Your task to perform on an android device: remove spam from my inbox in the gmail app Image 0: 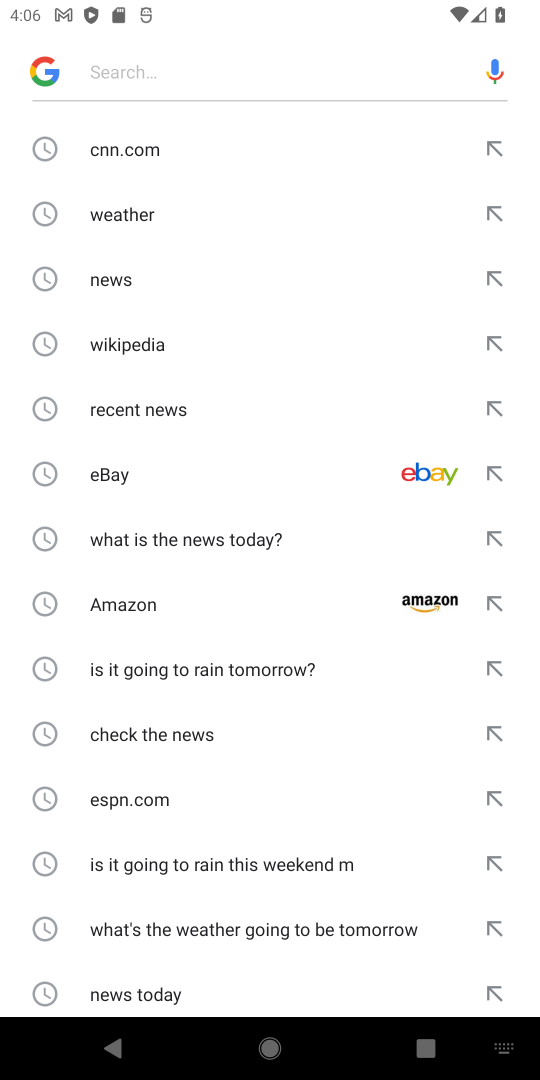
Step 0: press home button
Your task to perform on an android device: remove spam from my inbox in the gmail app Image 1: 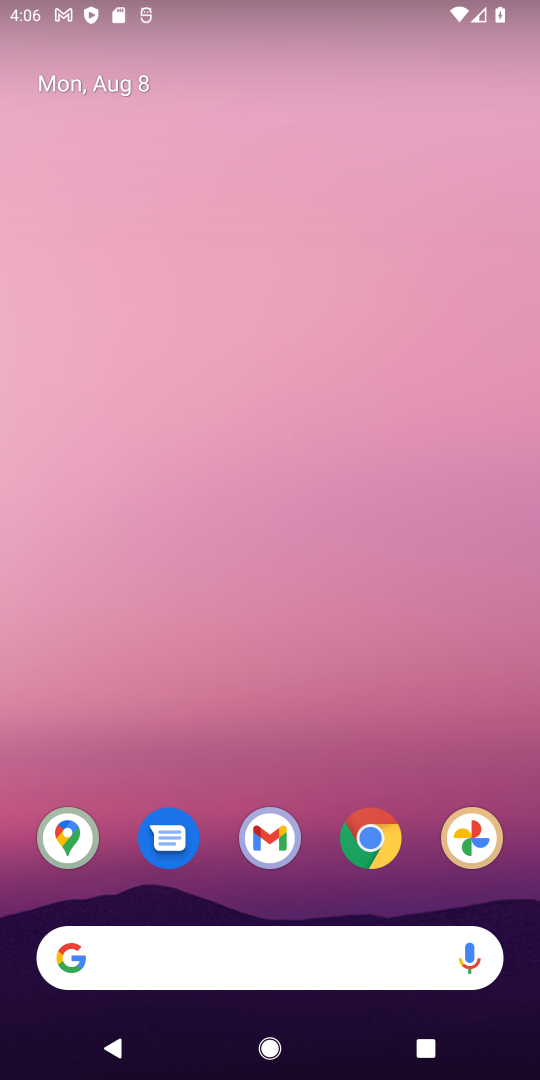
Step 1: drag from (229, 964) to (371, 429)
Your task to perform on an android device: remove spam from my inbox in the gmail app Image 2: 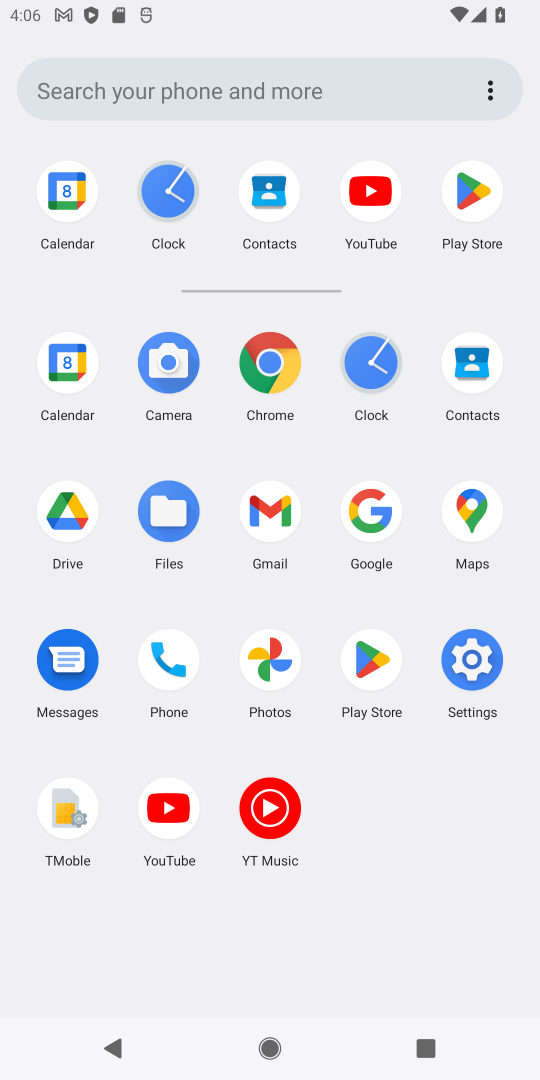
Step 2: click (267, 512)
Your task to perform on an android device: remove spam from my inbox in the gmail app Image 3: 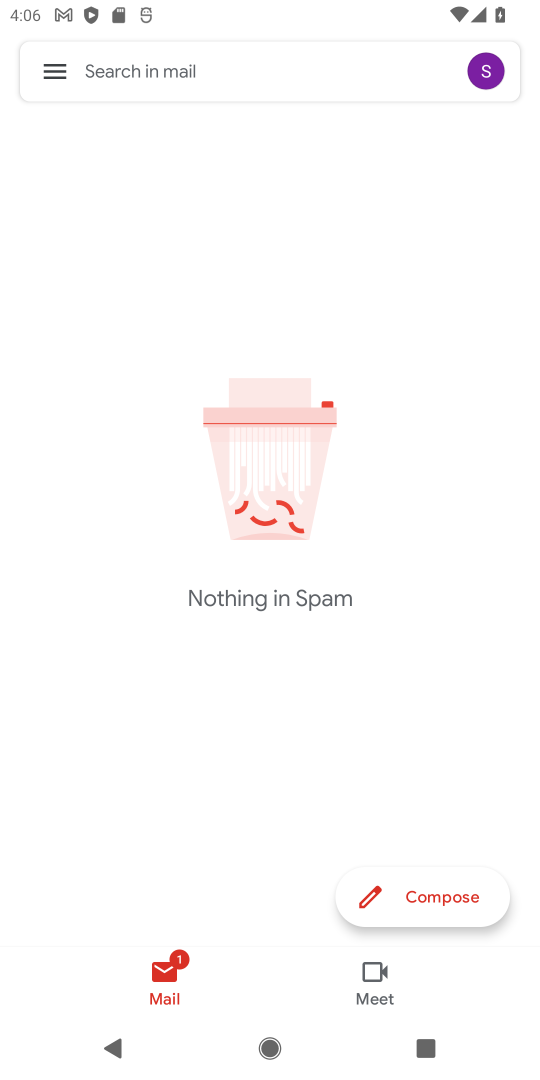
Step 3: task complete